Your task to perform on an android device: Check the settings for the Google Play Movies app Image 0: 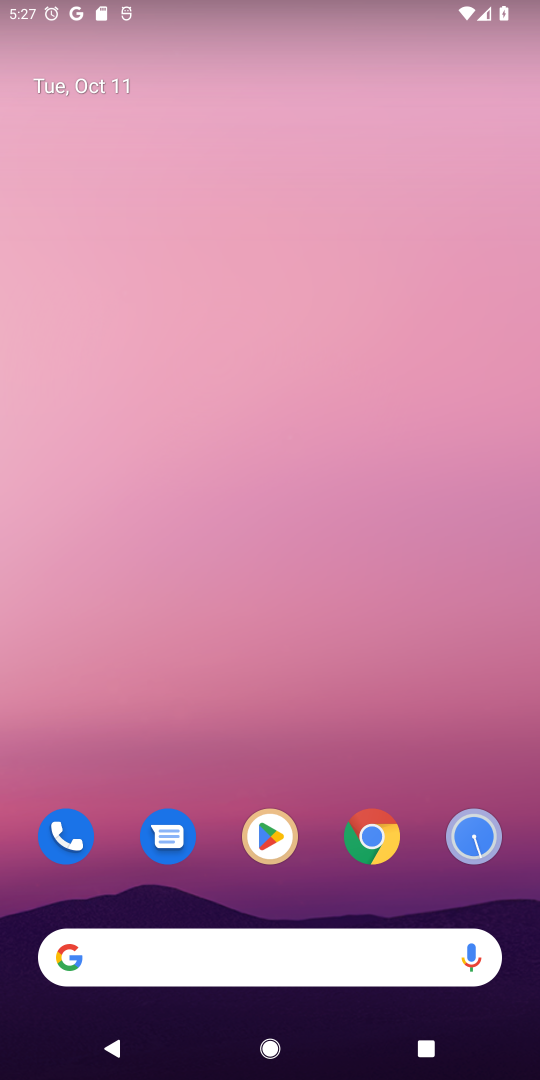
Step 0: click (286, 860)
Your task to perform on an android device: Check the settings for the Google Play Movies app Image 1: 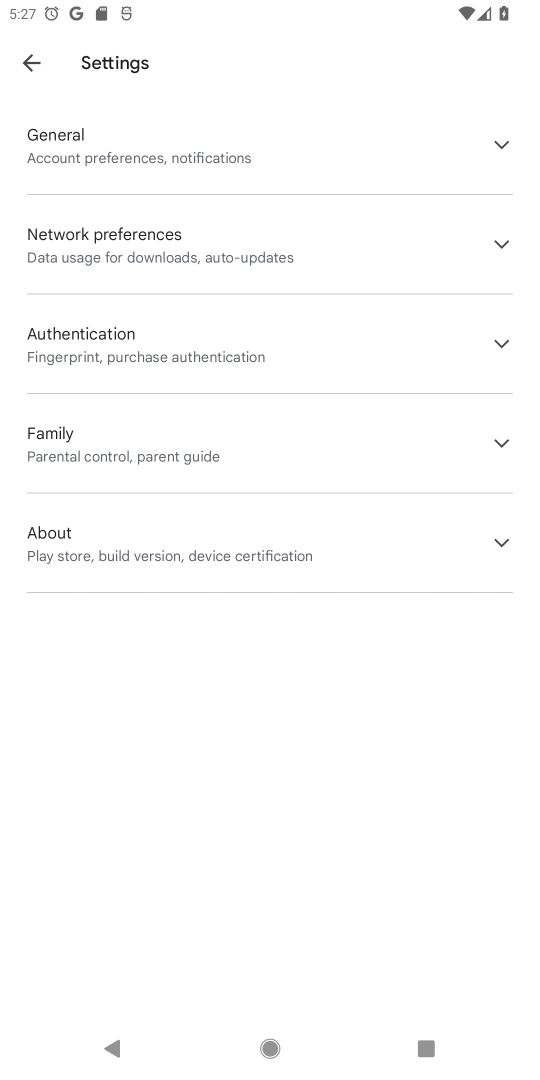
Step 1: click (26, 68)
Your task to perform on an android device: Check the settings for the Google Play Movies app Image 2: 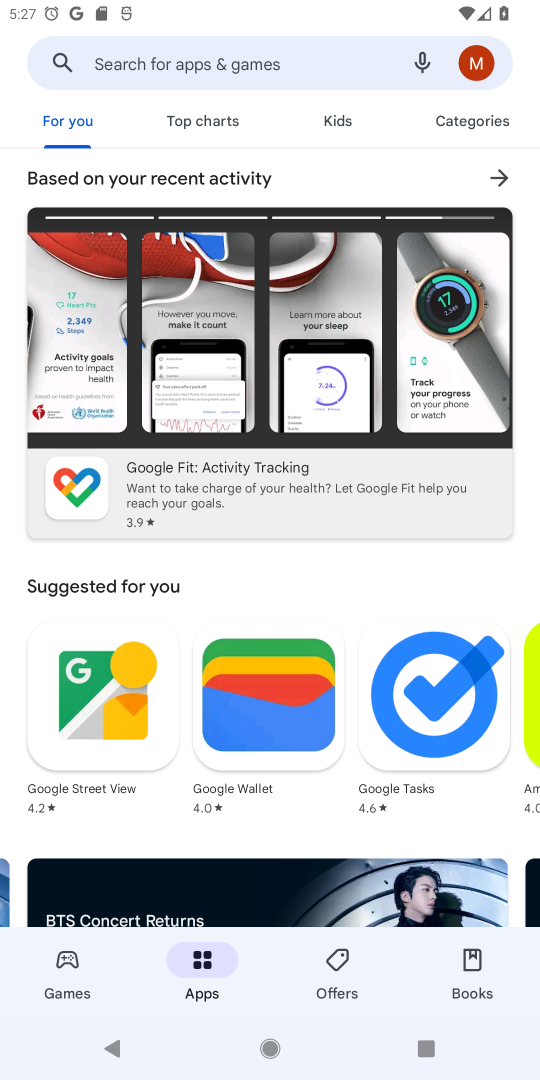
Step 2: click (495, 62)
Your task to perform on an android device: Check the settings for the Google Play Movies app Image 3: 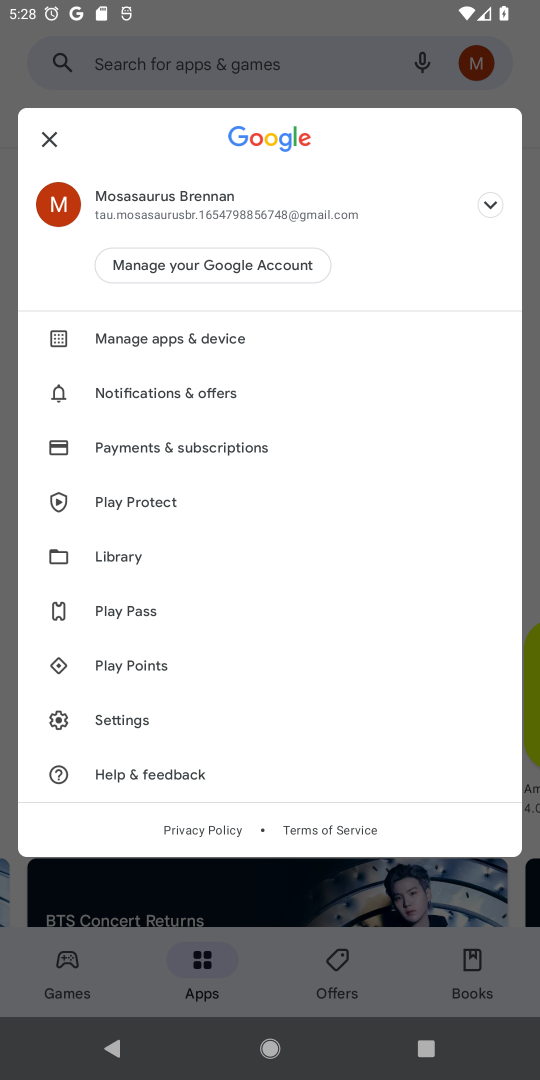
Step 3: click (170, 729)
Your task to perform on an android device: Check the settings for the Google Play Movies app Image 4: 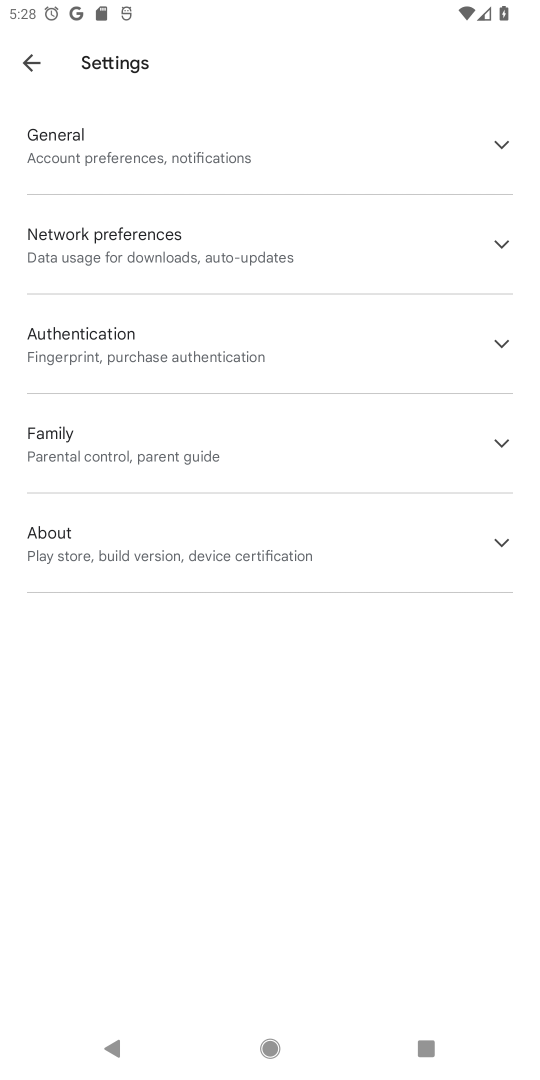
Step 4: task complete